Your task to perform on an android device: change notification settings in the gmail app Image 0: 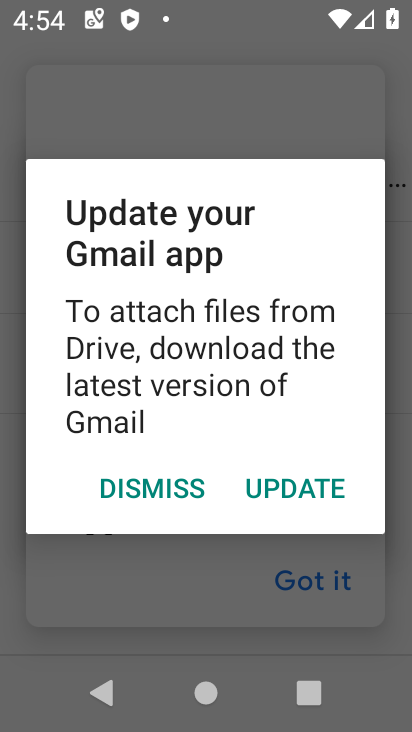
Step 0: press home button
Your task to perform on an android device: change notification settings in the gmail app Image 1: 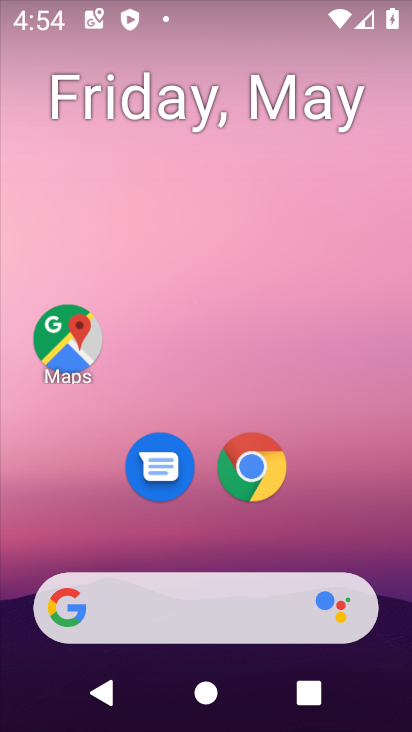
Step 1: drag from (358, 560) to (378, 95)
Your task to perform on an android device: change notification settings in the gmail app Image 2: 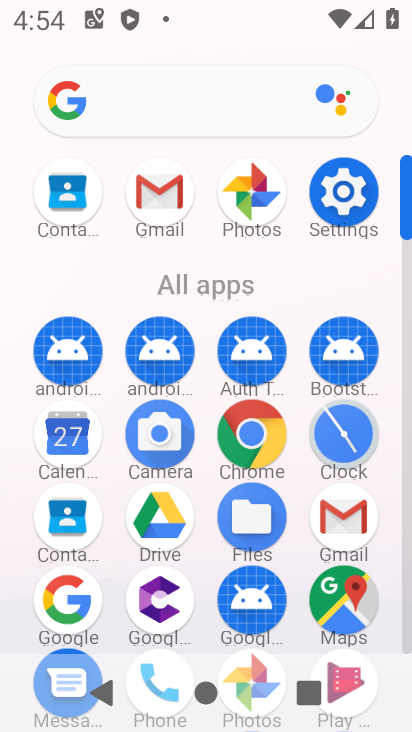
Step 2: click (151, 212)
Your task to perform on an android device: change notification settings in the gmail app Image 3: 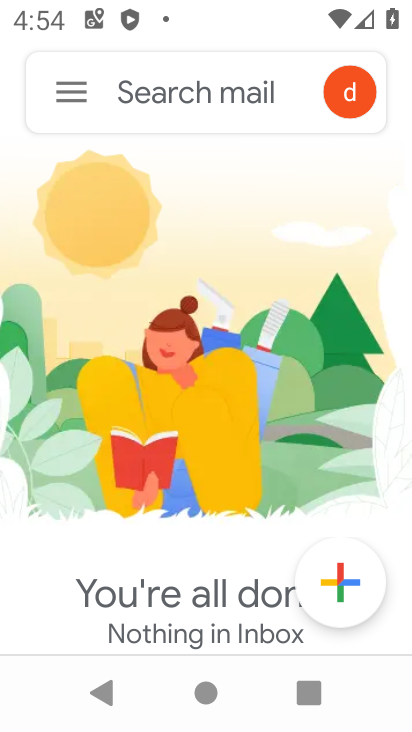
Step 3: click (81, 102)
Your task to perform on an android device: change notification settings in the gmail app Image 4: 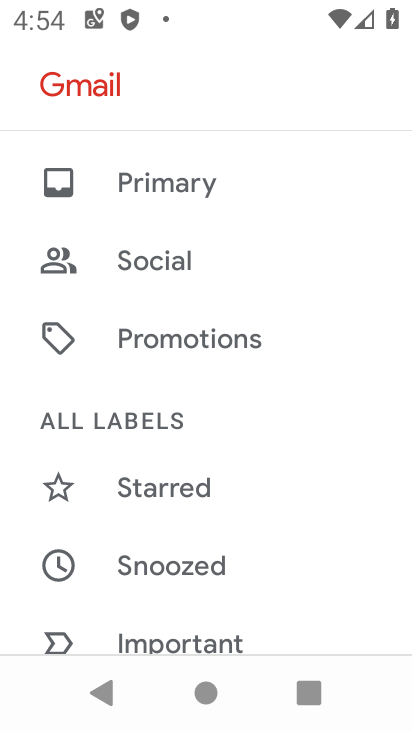
Step 4: drag from (229, 501) to (259, 72)
Your task to perform on an android device: change notification settings in the gmail app Image 5: 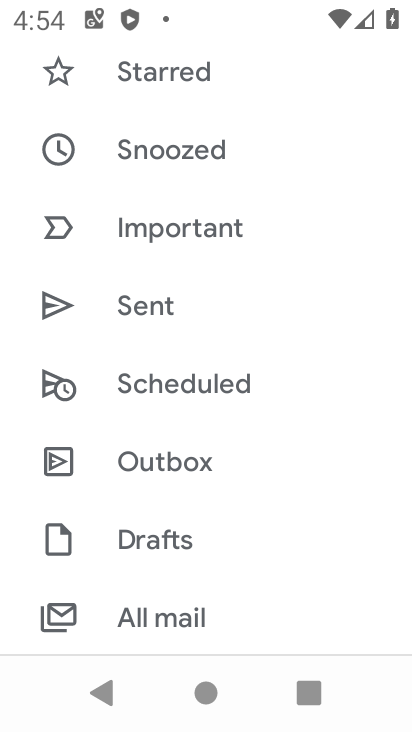
Step 5: drag from (260, 611) to (309, 143)
Your task to perform on an android device: change notification settings in the gmail app Image 6: 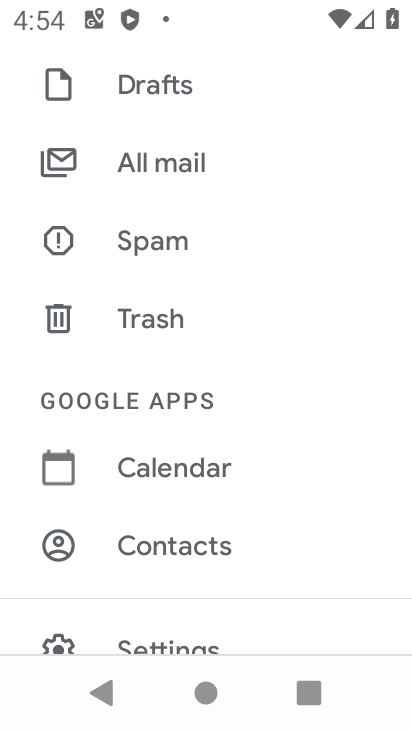
Step 6: click (183, 643)
Your task to perform on an android device: change notification settings in the gmail app Image 7: 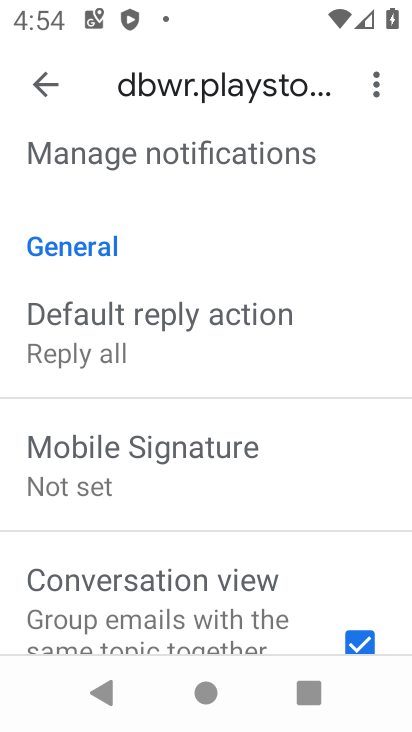
Step 7: click (255, 147)
Your task to perform on an android device: change notification settings in the gmail app Image 8: 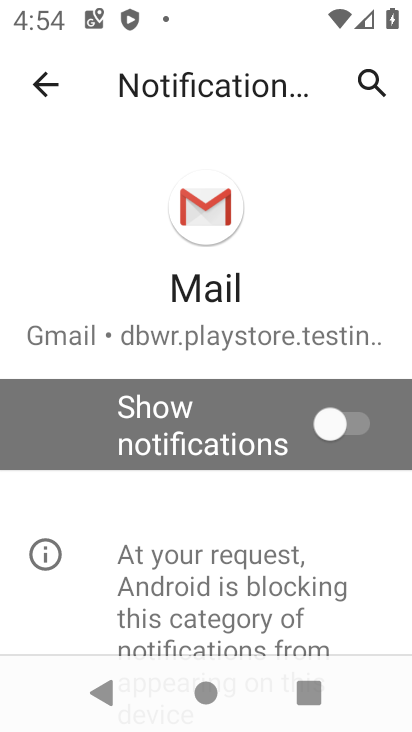
Step 8: click (355, 435)
Your task to perform on an android device: change notification settings in the gmail app Image 9: 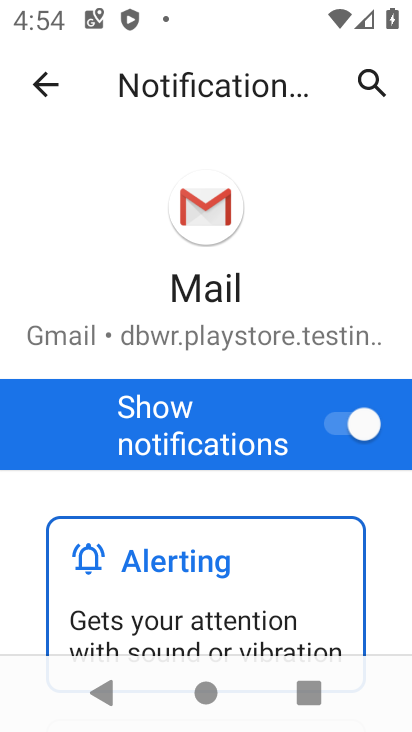
Step 9: task complete